Your task to perform on an android device: Open wifi settings Image 0: 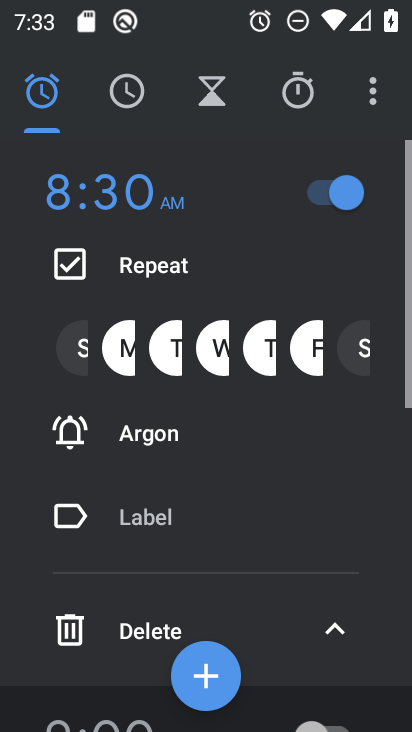
Step 0: press home button
Your task to perform on an android device: Open wifi settings Image 1: 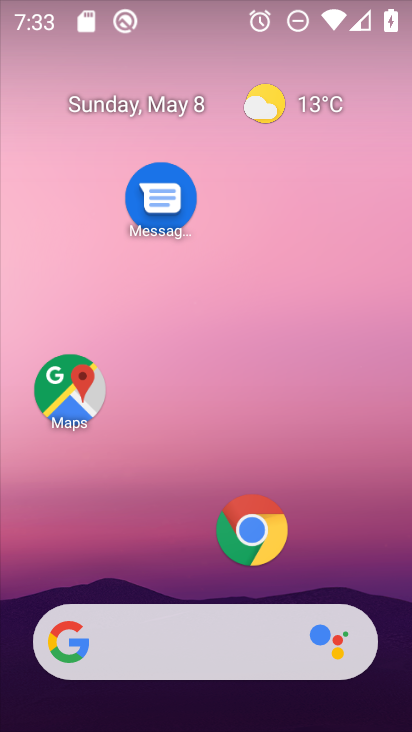
Step 1: drag from (204, 578) to (307, 39)
Your task to perform on an android device: Open wifi settings Image 2: 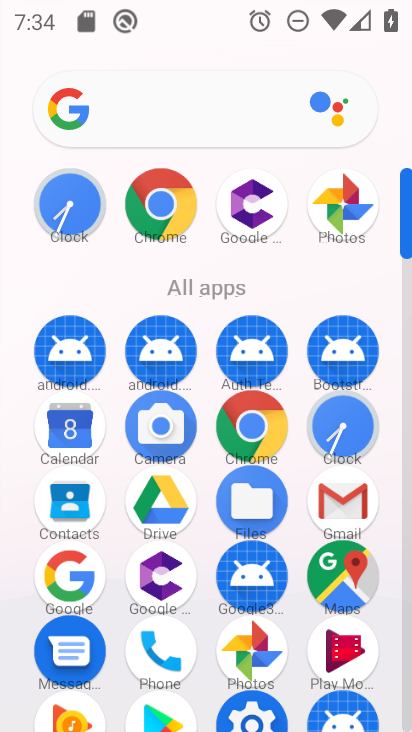
Step 2: click (257, 719)
Your task to perform on an android device: Open wifi settings Image 3: 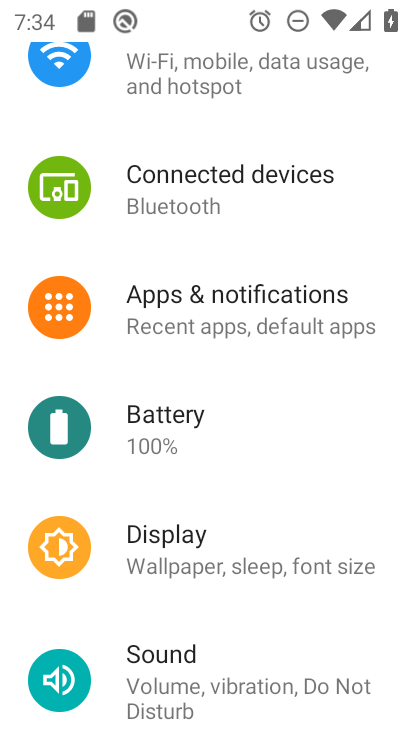
Step 3: drag from (214, 322) to (194, 716)
Your task to perform on an android device: Open wifi settings Image 4: 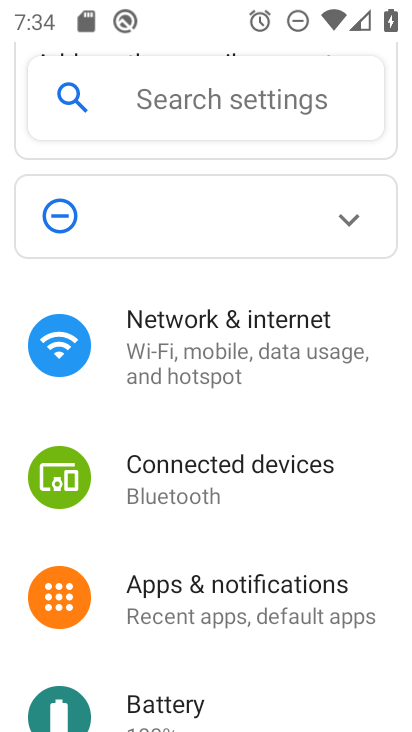
Step 4: click (195, 365)
Your task to perform on an android device: Open wifi settings Image 5: 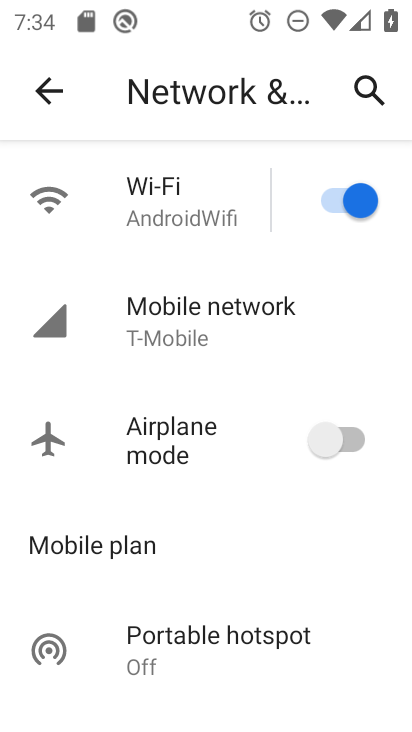
Step 5: click (167, 174)
Your task to perform on an android device: Open wifi settings Image 6: 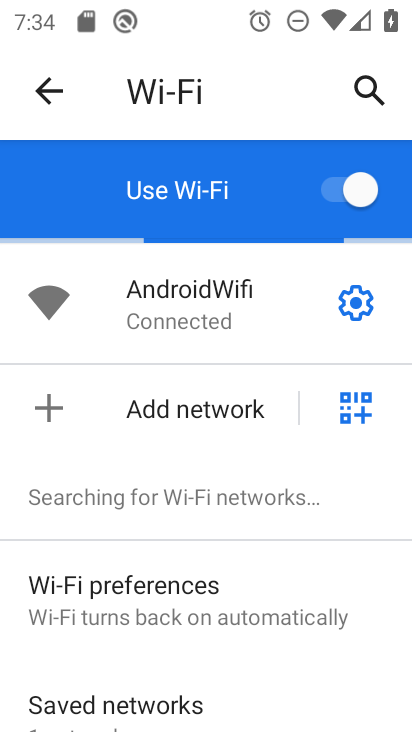
Step 6: task complete